Your task to perform on an android device: turn pop-ups off in chrome Image 0: 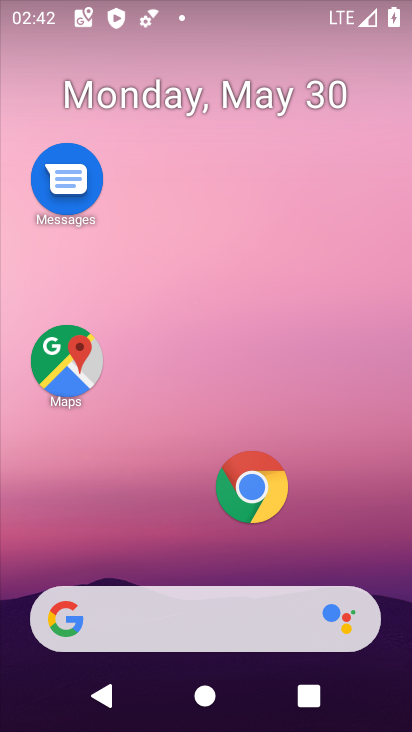
Step 0: drag from (232, 468) to (270, 154)
Your task to perform on an android device: turn pop-ups off in chrome Image 1: 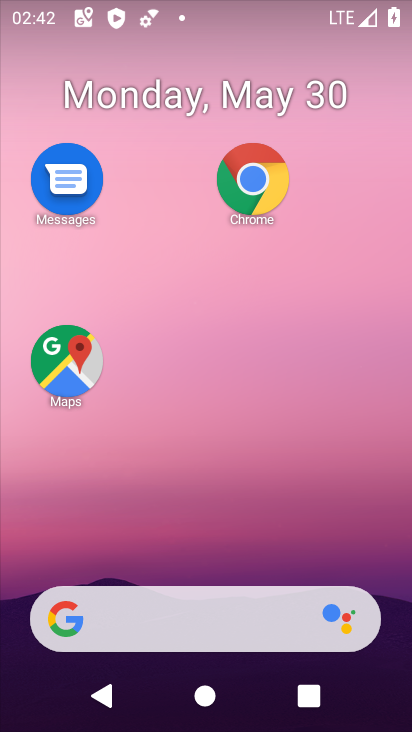
Step 1: drag from (202, 560) to (221, 19)
Your task to perform on an android device: turn pop-ups off in chrome Image 2: 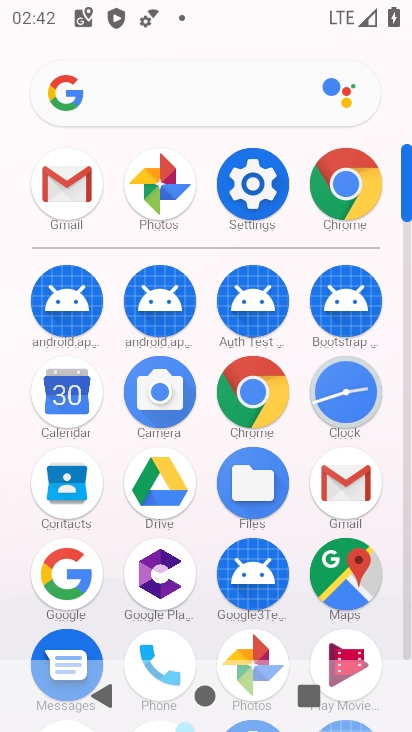
Step 2: click (336, 189)
Your task to perform on an android device: turn pop-ups off in chrome Image 3: 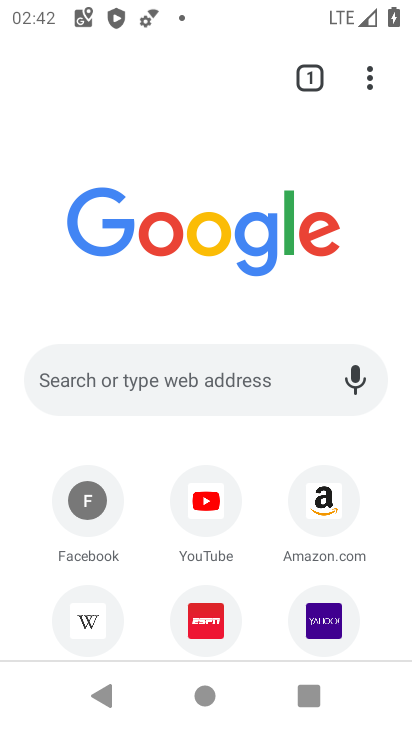
Step 3: click (354, 91)
Your task to perform on an android device: turn pop-ups off in chrome Image 4: 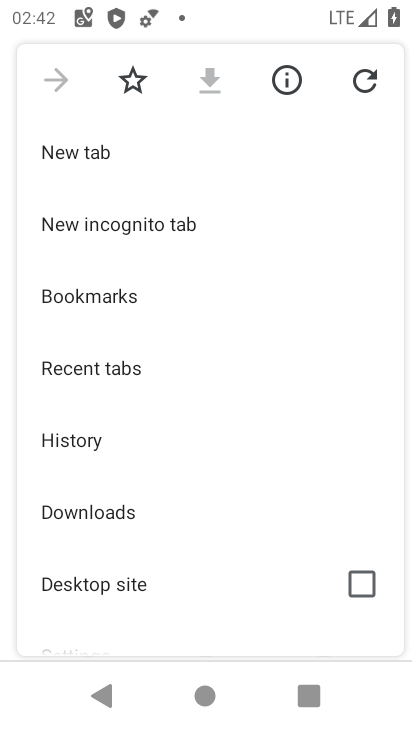
Step 4: drag from (145, 590) to (218, 42)
Your task to perform on an android device: turn pop-ups off in chrome Image 5: 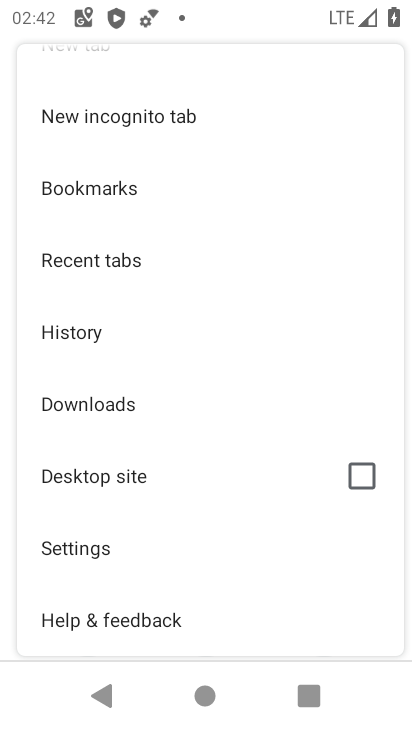
Step 5: click (86, 546)
Your task to perform on an android device: turn pop-ups off in chrome Image 6: 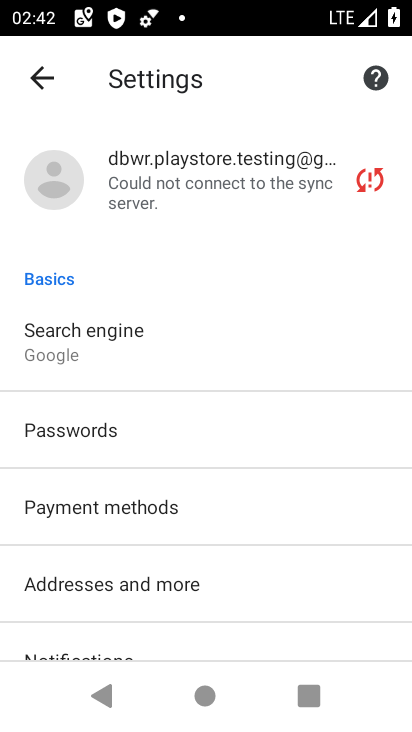
Step 6: drag from (167, 596) to (240, 34)
Your task to perform on an android device: turn pop-ups off in chrome Image 7: 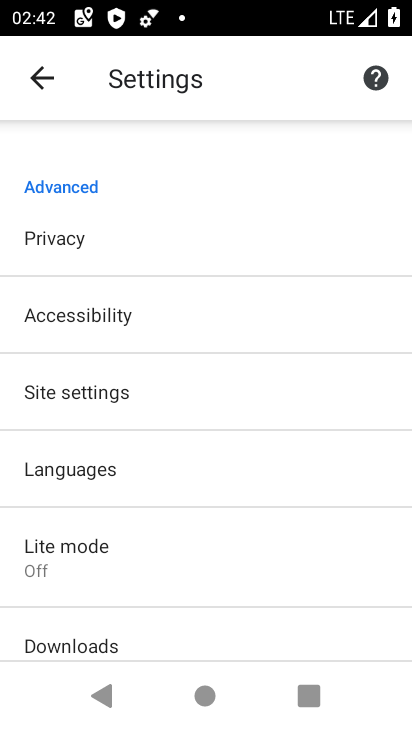
Step 7: drag from (165, 572) to (172, 255)
Your task to perform on an android device: turn pop-ups off in chrome Image 8: 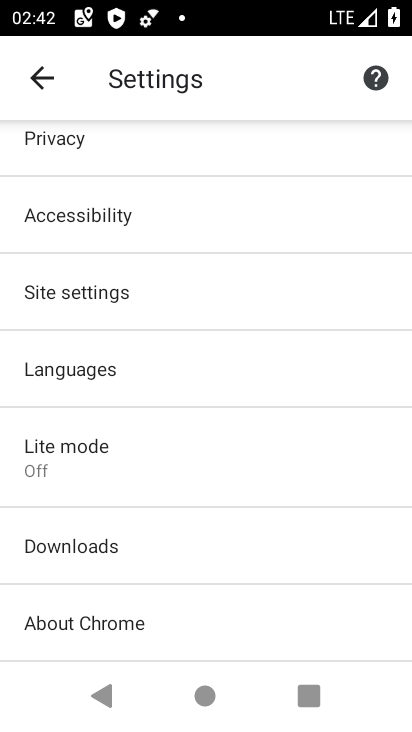
Step 8: drag from (166, 600) to (196, 244)
Your task to perform on an android device: turn pop-ups off in chrome Image 9: 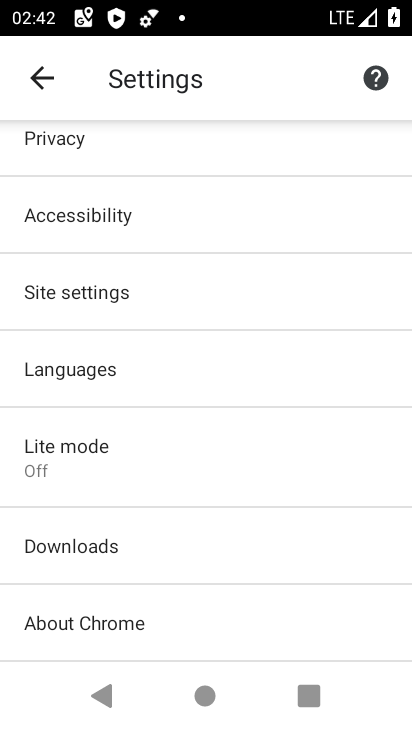
Step 9: click (78, 293)
Your task to perform on an android device: turn pop-ups off in chrome Image 10: 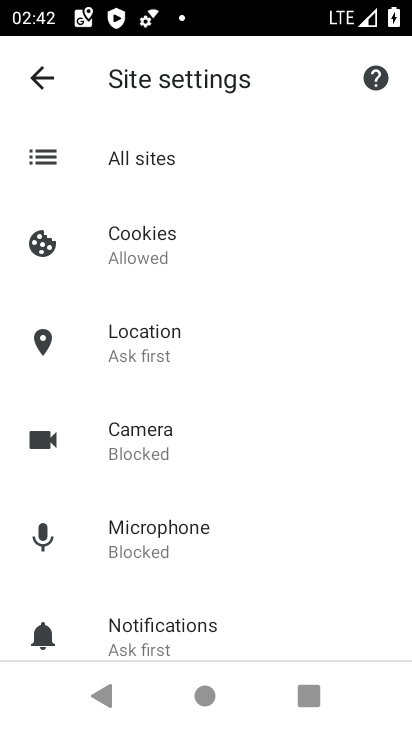
Step 10: drag from (180, 604) to (210, 163)
Your task to perform on an android device: turn pop-ups off in chrome Image 11: 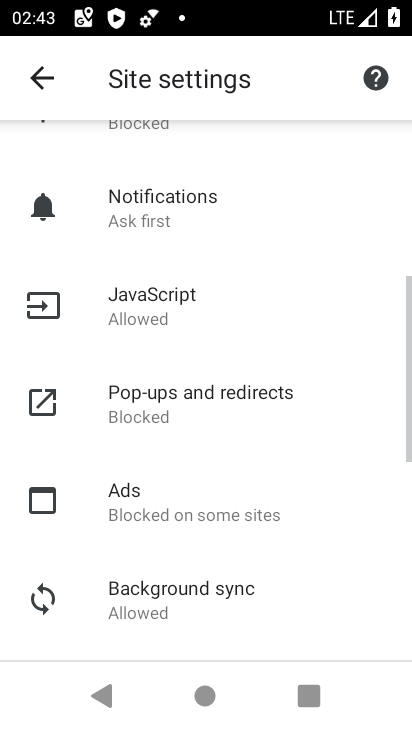
Step 11: click (160, 413)
Your task to perform on an android device: turn pop-ups off in chrome Image 12: 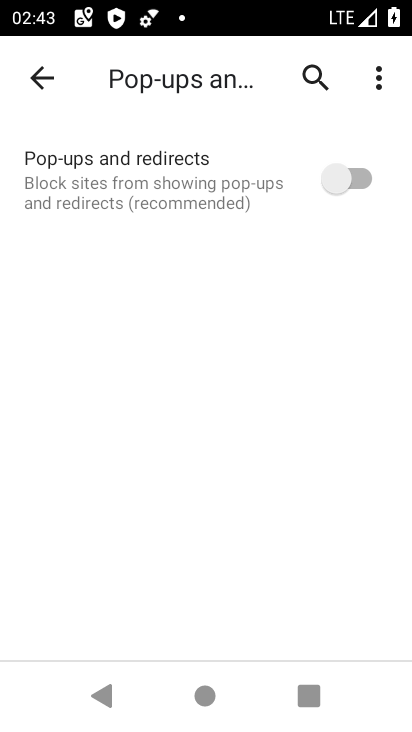
Step 12: task complete